Your task to perform on an android device: Open eBay Image 0: 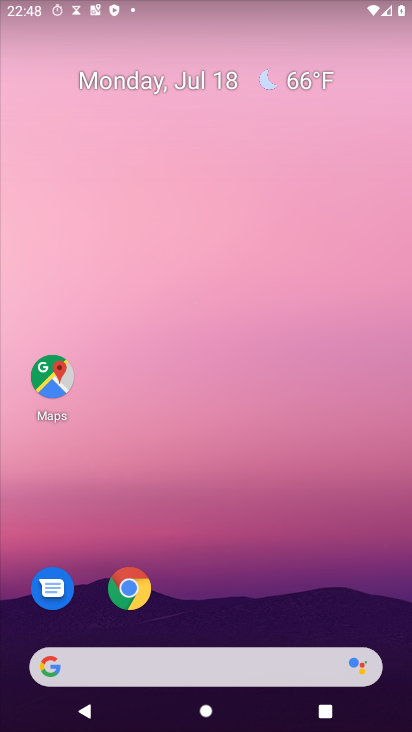
Step 0: click (129, 590)
Your task to perform on an android device: Open eBay Image 1: 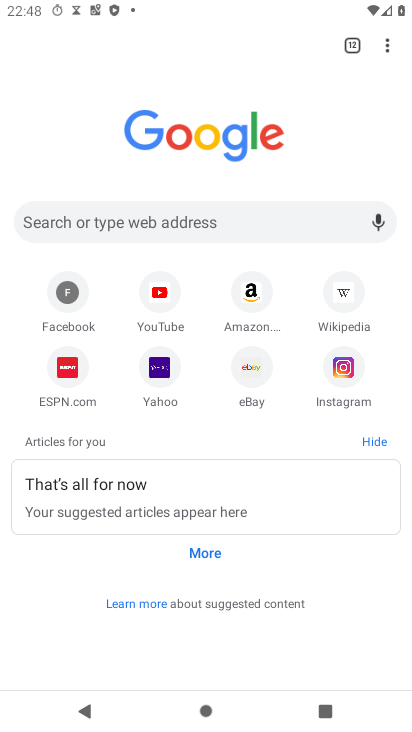
Step 1: click (257, 375)
Your task to perform on an android device: Open eBay Image 2: 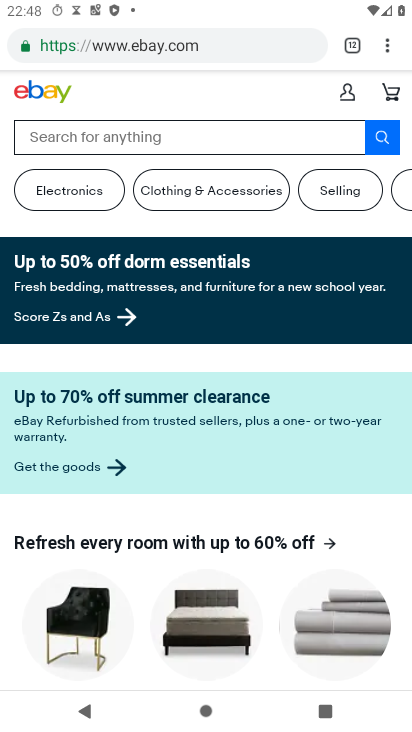
Step 2: task complete